Your task to perform on an android device: Open settings on Google Maps Image 0: 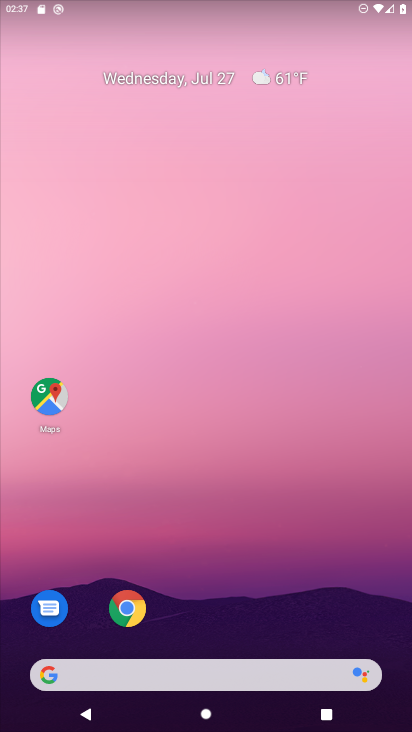
Step 0: click (46, 404)
Your task to perform on an android device: Open settings on Google Maps Image 1: 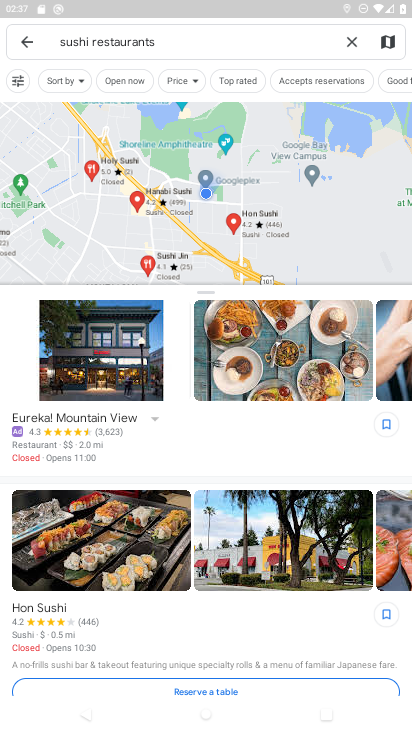
Step 1: click (27, 43)
Your task to perform on an android device: Open settings on Google Maps Image 2: 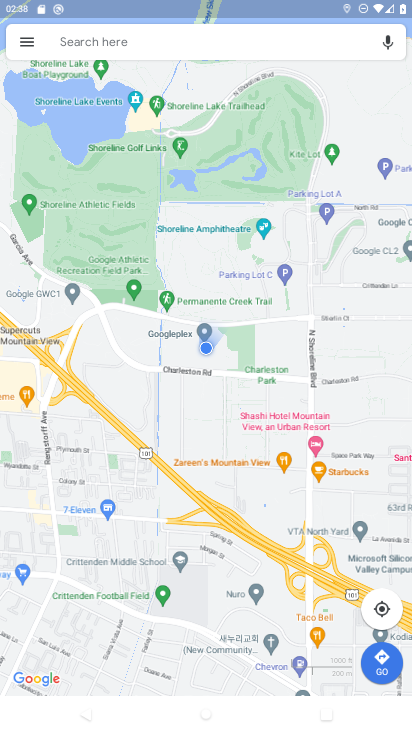
Step 2: click (27, 41)
Your task to perform on an android device: Open settings on Google Maps Image 3: 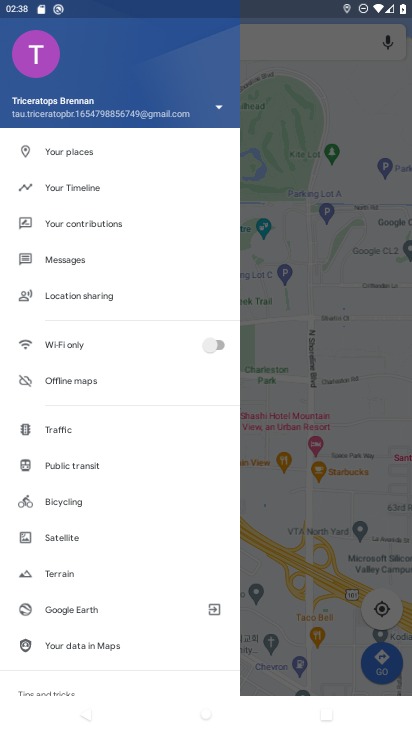
Step 3: drag from (121, 613) to (101, 270)
Your task to perform on an android device: Open settings on Google Maps Image 4: 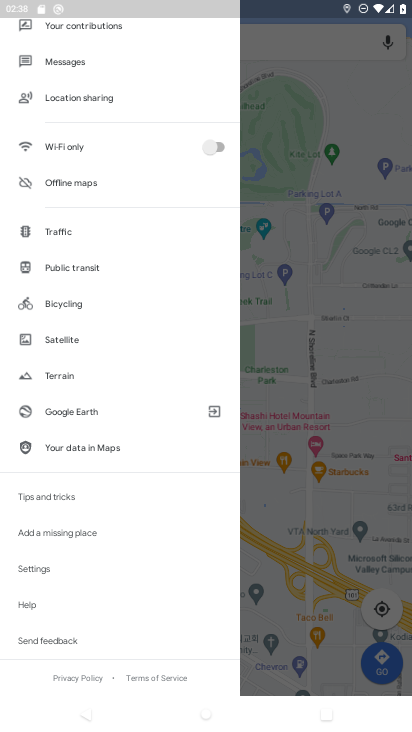
Step 4: click (62, 566)
Your task to perform on an android device: Open settings on Google Maps Image 5: 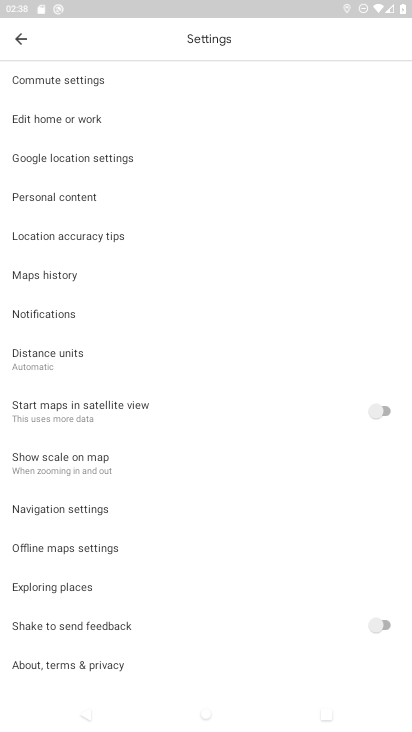
Step 5: task complete